Your task to perform on an android device: toggle location history Image 0: 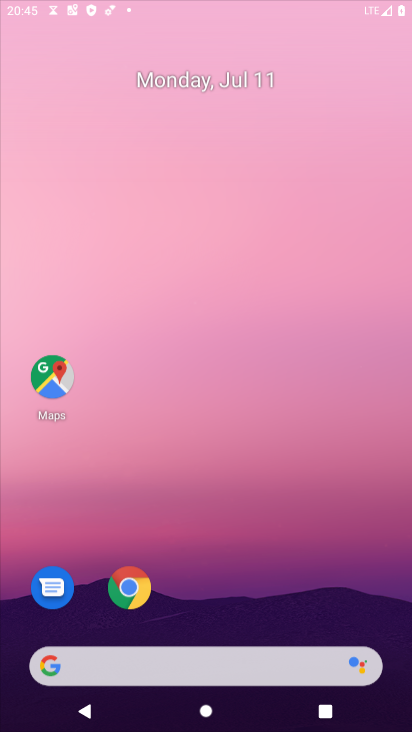
Step 0: press home button
Your task to perform on an android device: toggle location history Image 1: 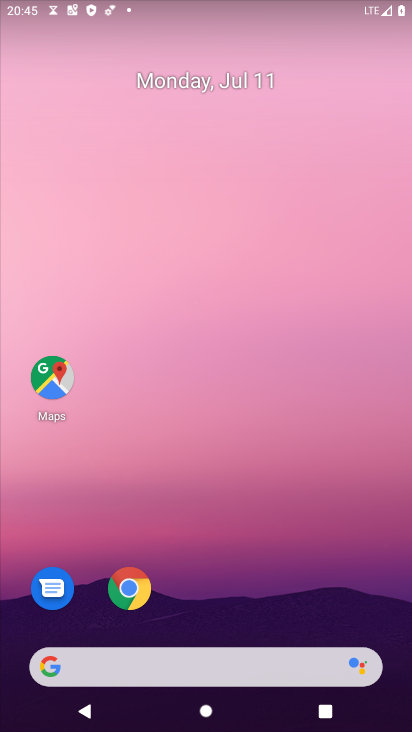
Step 1: drag from (239, 618) to (199, 29)
Your task to perform on an android device: toggle location history Image 2: 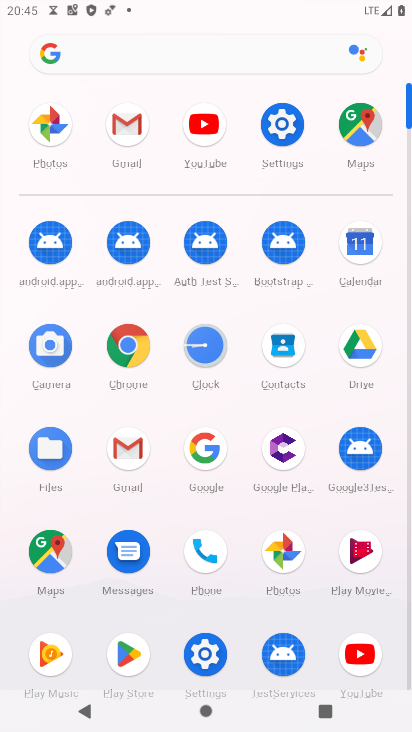
Step 2: click (269, 125)
Your task to perform on an android device: toggle location history Image 3: 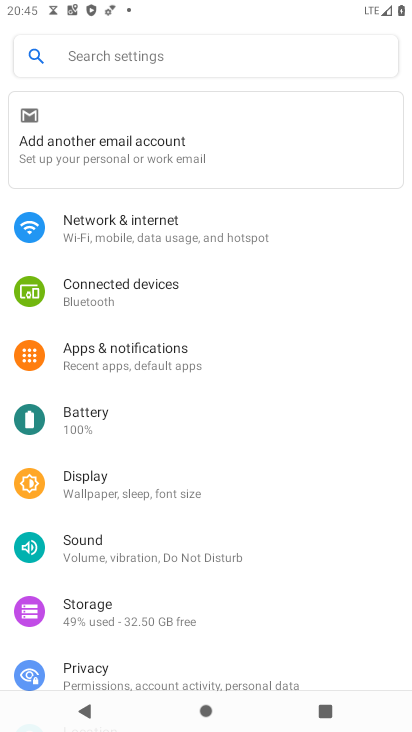
Step 3: drag from (264, 614) to (226, 254)
Your task to perform on an android device: toggle location history Image 4: 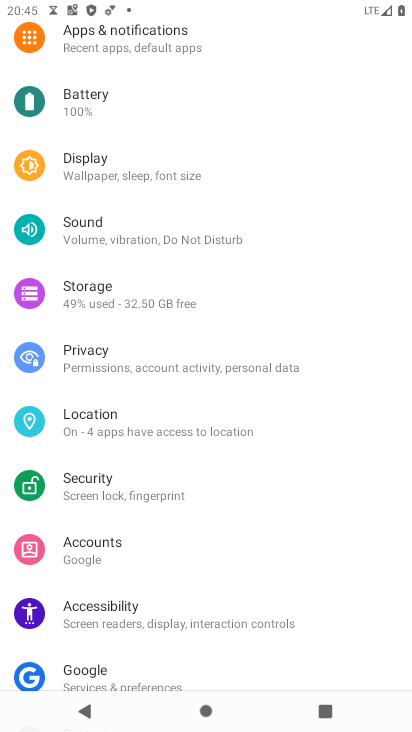
Step 4: click (103, 427)
Your task to perform on an android device: toggle location history Image 5: 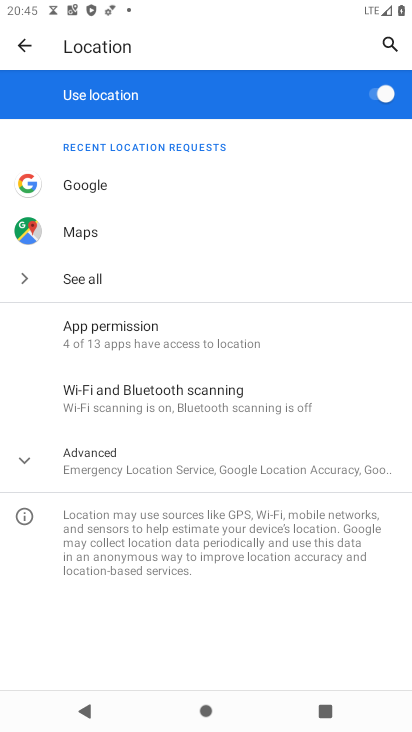
Step 5: click (99, 464)
Your task to perform on an android device: toggle location history Image 6: 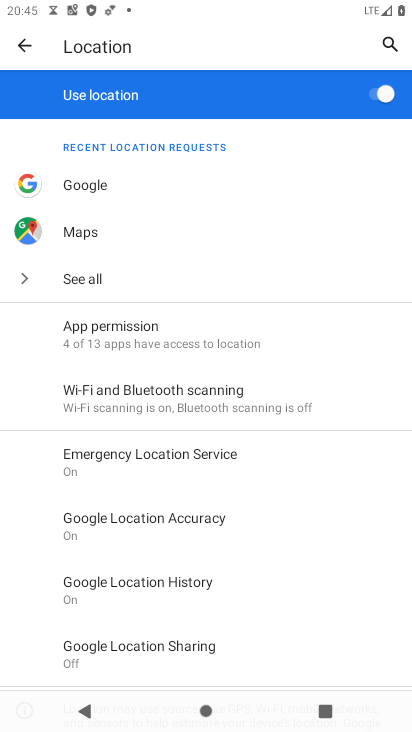
Step 6: click (162, 581)
Your task to perform on an android device: toggle location history Image 7: 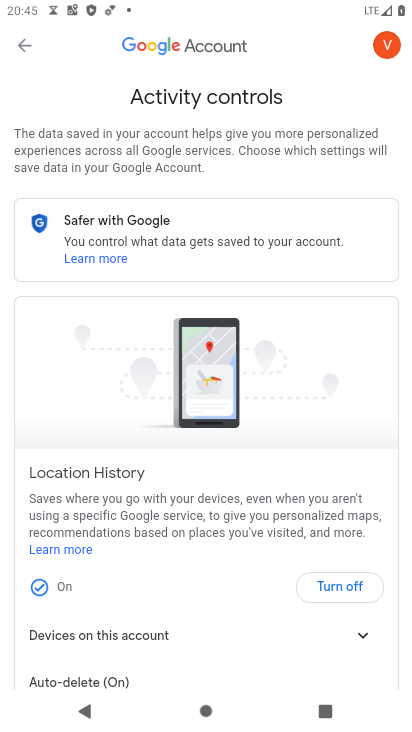
Step 7: click (344, 590)
Your task to perform on an android device: toggle location history Image 8: 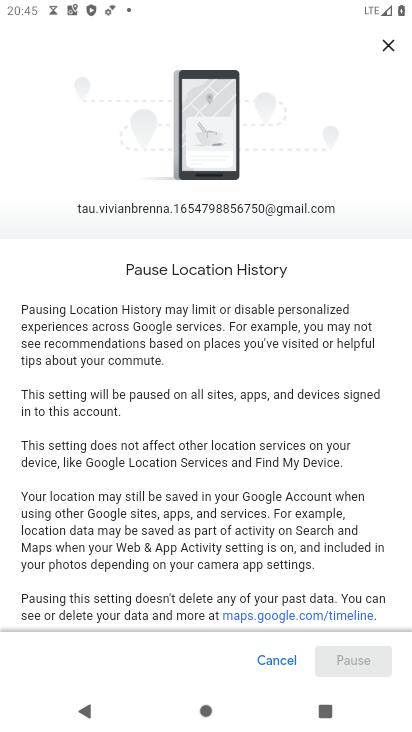
Step 8: drag from (381, 573) to (348, 118)
Your task to perform on an android device: toggle location history Image 9: 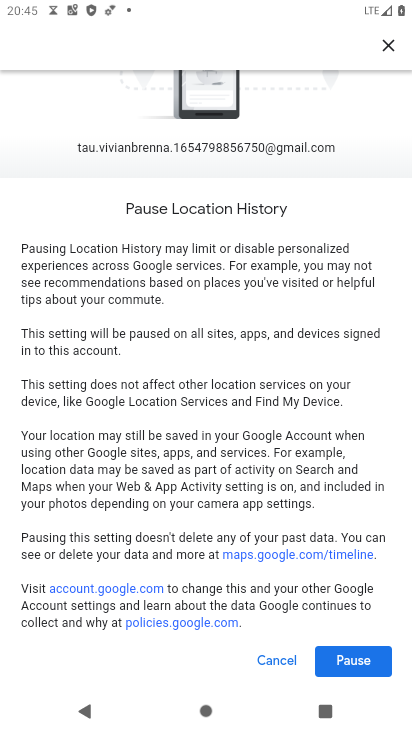
Step 9: click (353, 654)
Your task to perform on an android device: toggle location history Image 10: 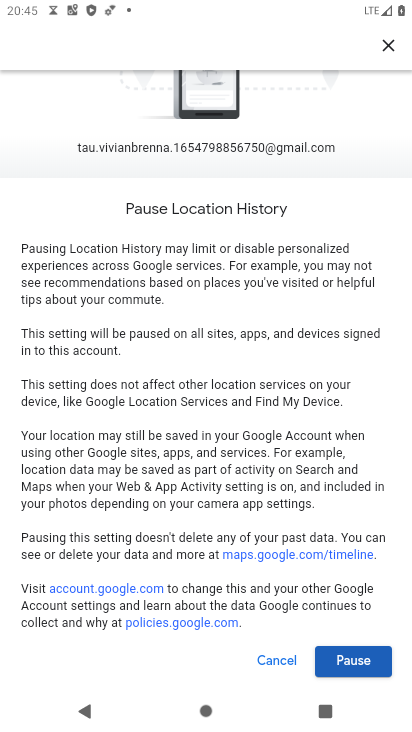
Step 10: click (339, 655)
Your task to perform on an android device: toggle location history Image 11: 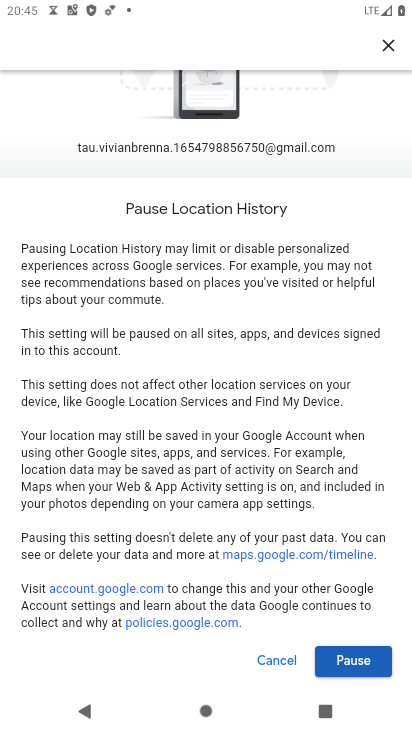
Step 11: click (340, 661)
Your task to perform on an android device: toggle location history Image 12: 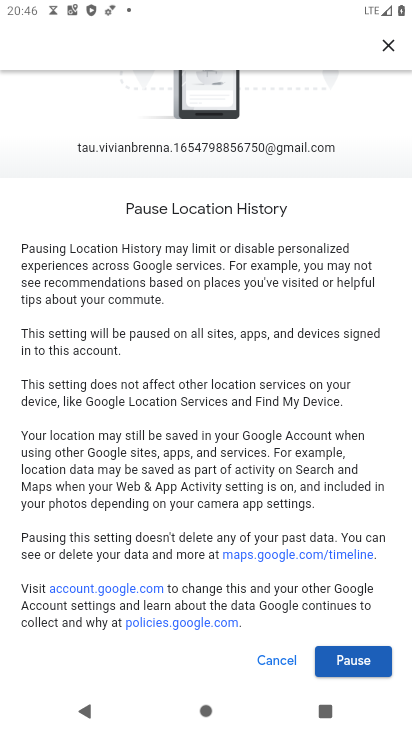
Step 12: click (337, 661)
Your task to perform on an android device: toggle location history Image 13: 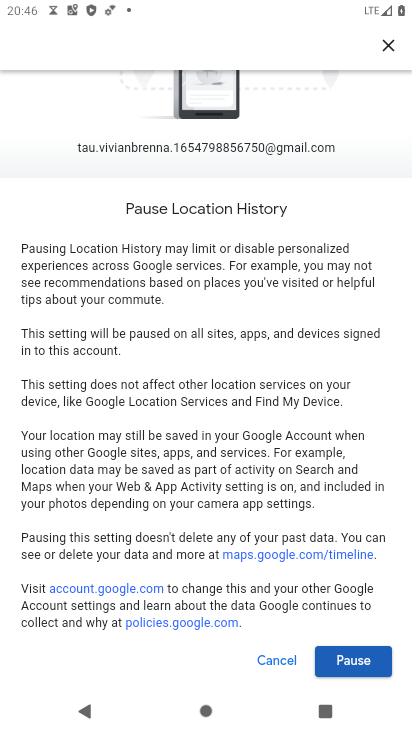
Step 13: click (275, 660)
Your task to perform on an android device: toggle location history Image 14: 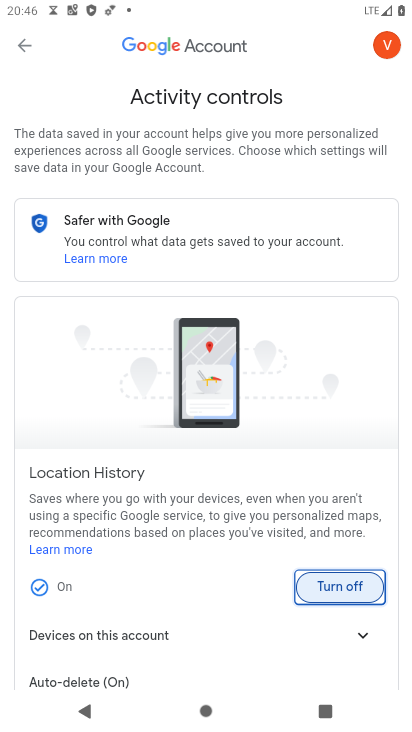
Step 14: click (324, 585)
Your task to perform on an android device: toggle location history Image 15: 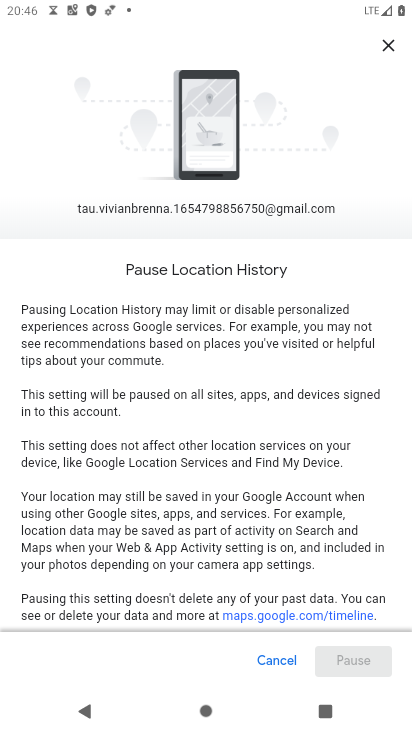
Step 15: drag from (348, 577) to (330, 239)
Your task to perform on an android device: toggle location history Image 16: 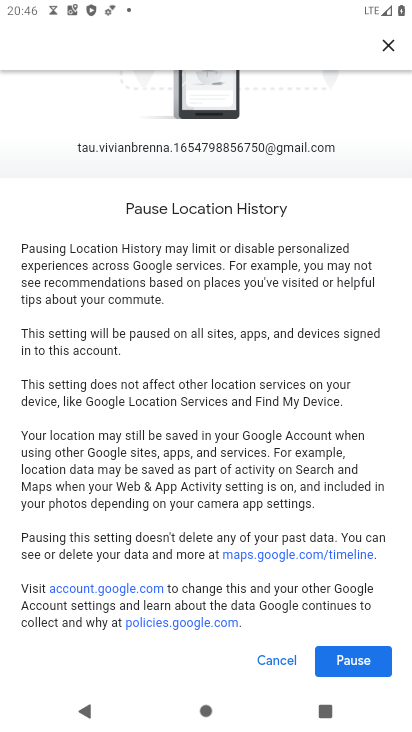
Step 16: click (333, 656)
Your task to perform on an android device: toggle location history Image 17: 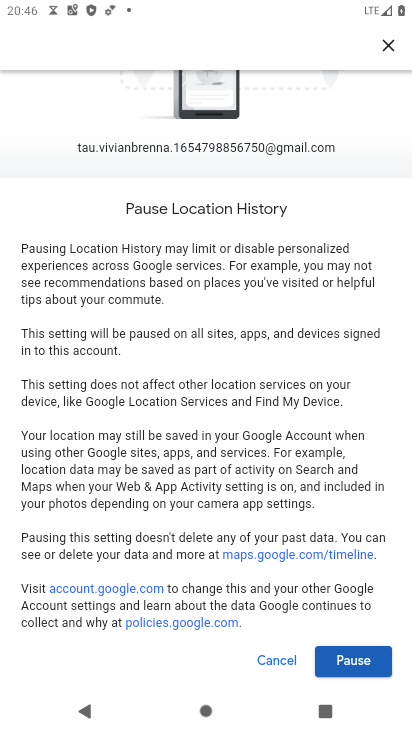
Step 17: click (359, 661)
Your task to perform on an android device: toggle location history Image 18: 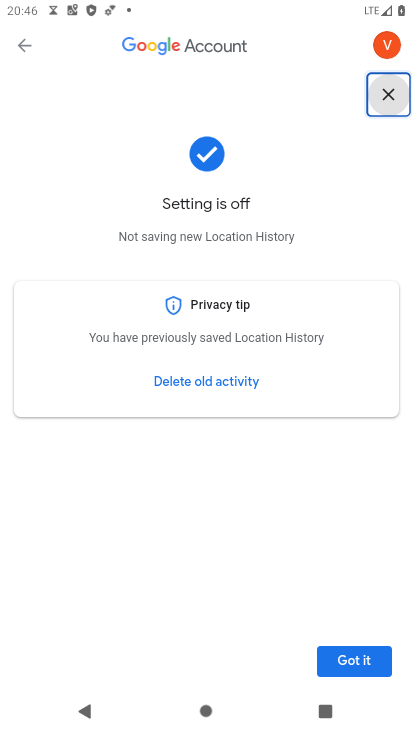
Step 18: click (351, 663)
Your task to perform on an android device: toggle location history Image 19: 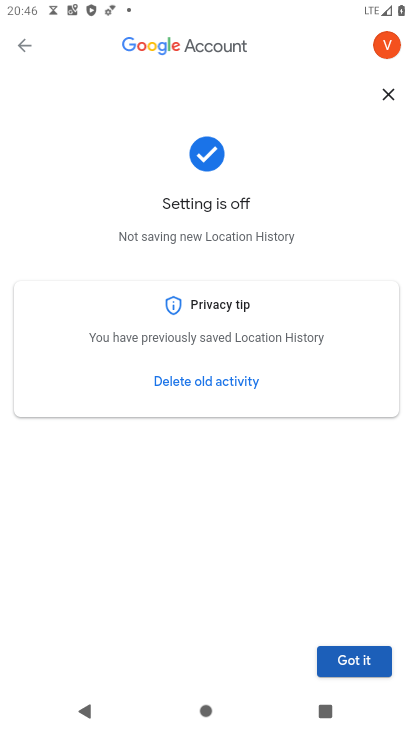
Step 19: click (351, 662)
Your task to perform on an android device: toggle location history Image 20: 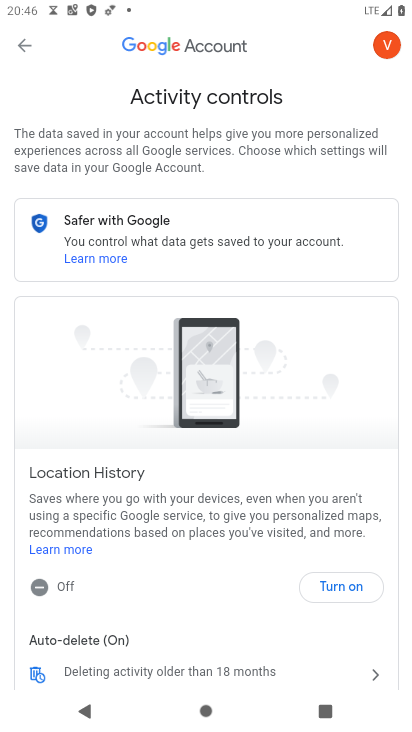
Step 20: task complete